Your task to perform on an android device: add a contact in the contacts app Image 0: 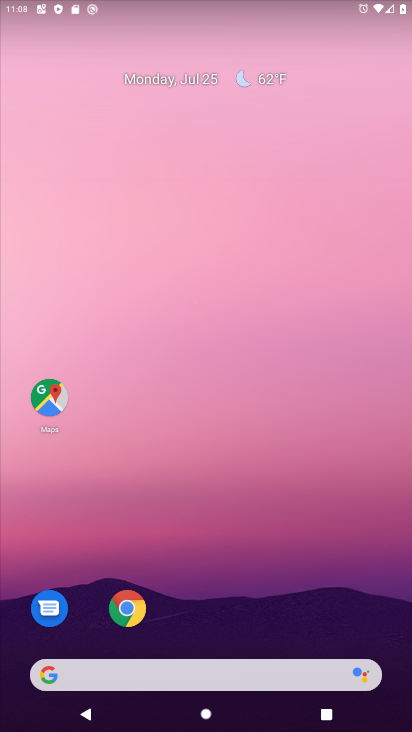
Step 0: drag from (224, 573) to (241, 154)
Your task to perform on an android device: add a contact in the contacts app Image 1: 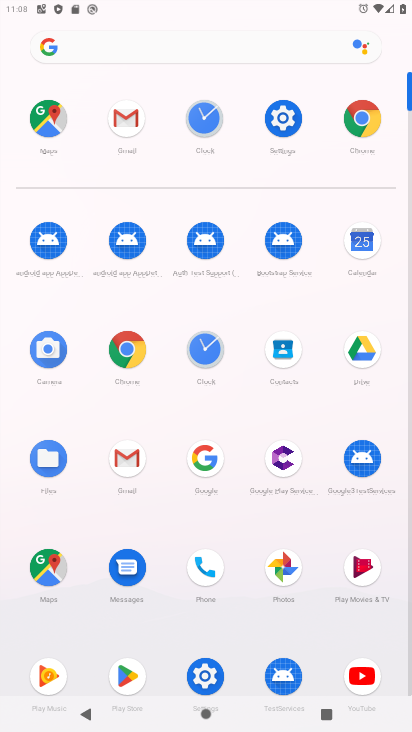
Step 1: click (277, 345)
Your task to perform on an android device: add a contact in the contacts app Image 2: 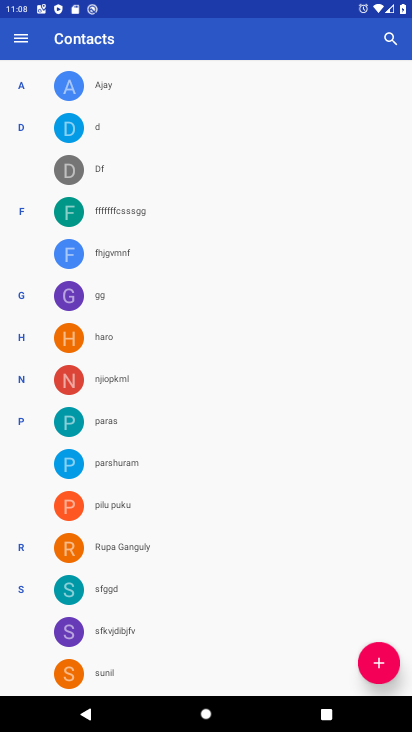
Step 2: click (382, 658)
Your task to perform on an android device: add a contact in the contacts app Image 3: 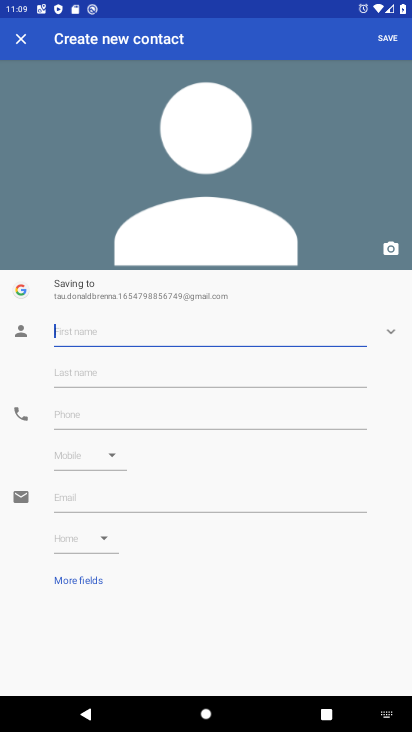
Step 3: type "blinked"
Your task to perform on an android device: add a contact in the contacts app Image 4: 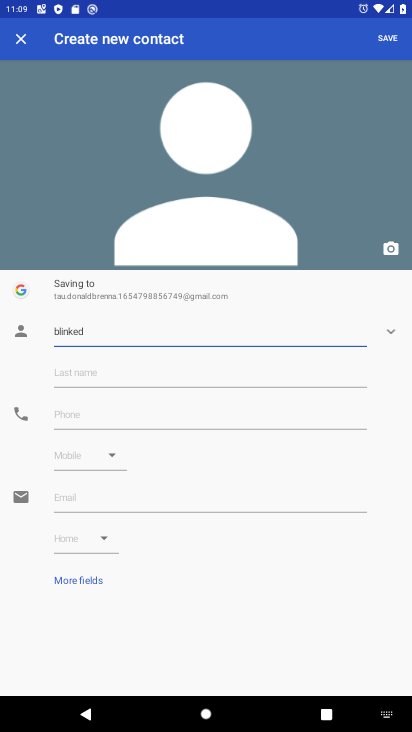
Step 4: click (385, 38)
Your task to perform on an android device: add a contact in the contacts app Image 5: 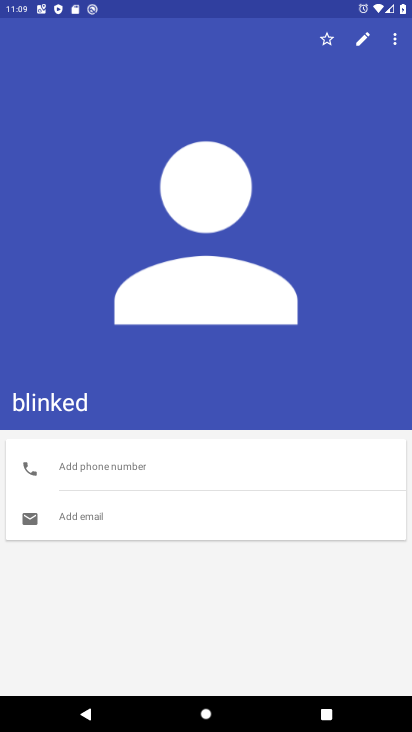
Step 5: task complete